Your task to perform on an android device: Go to CNN.com Image 0: 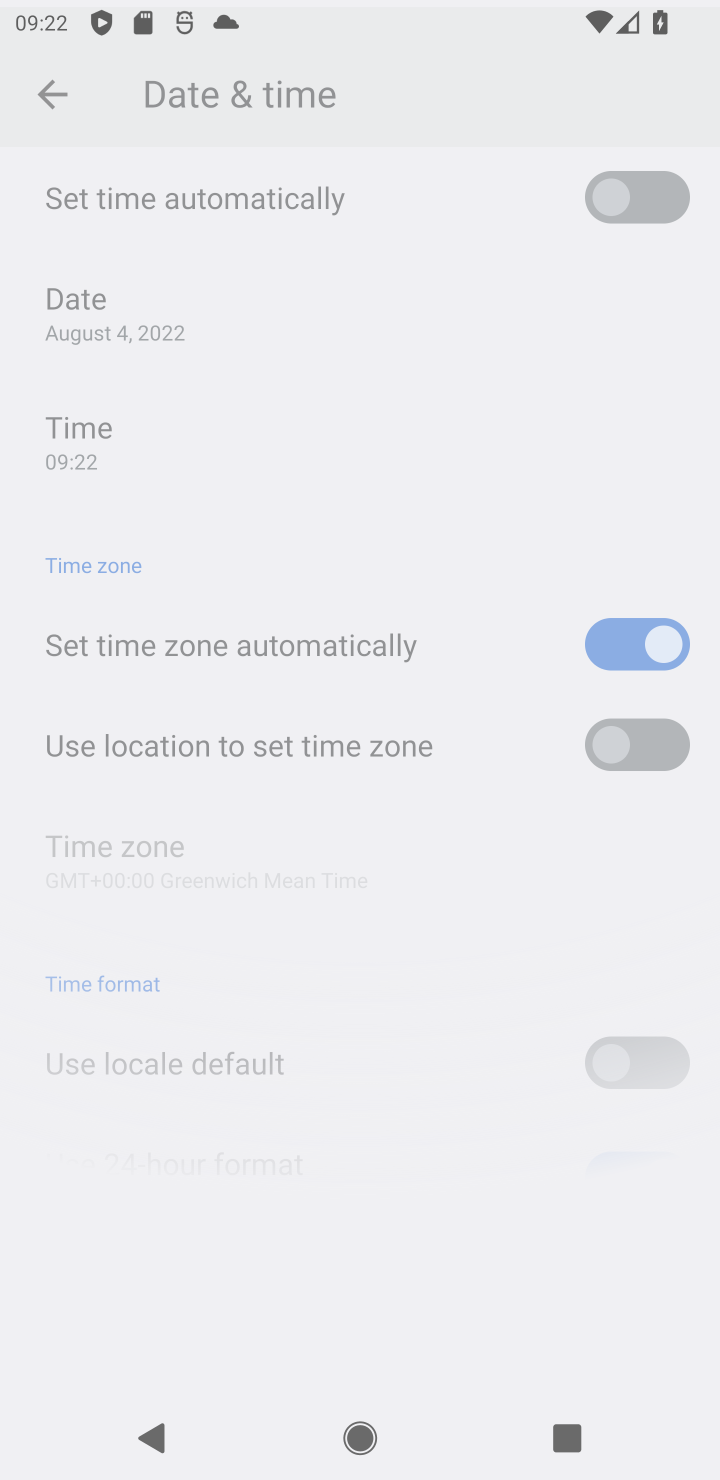
Step 0: press home button
Your task to perform on an android device: Go to CNN.com Image 1: 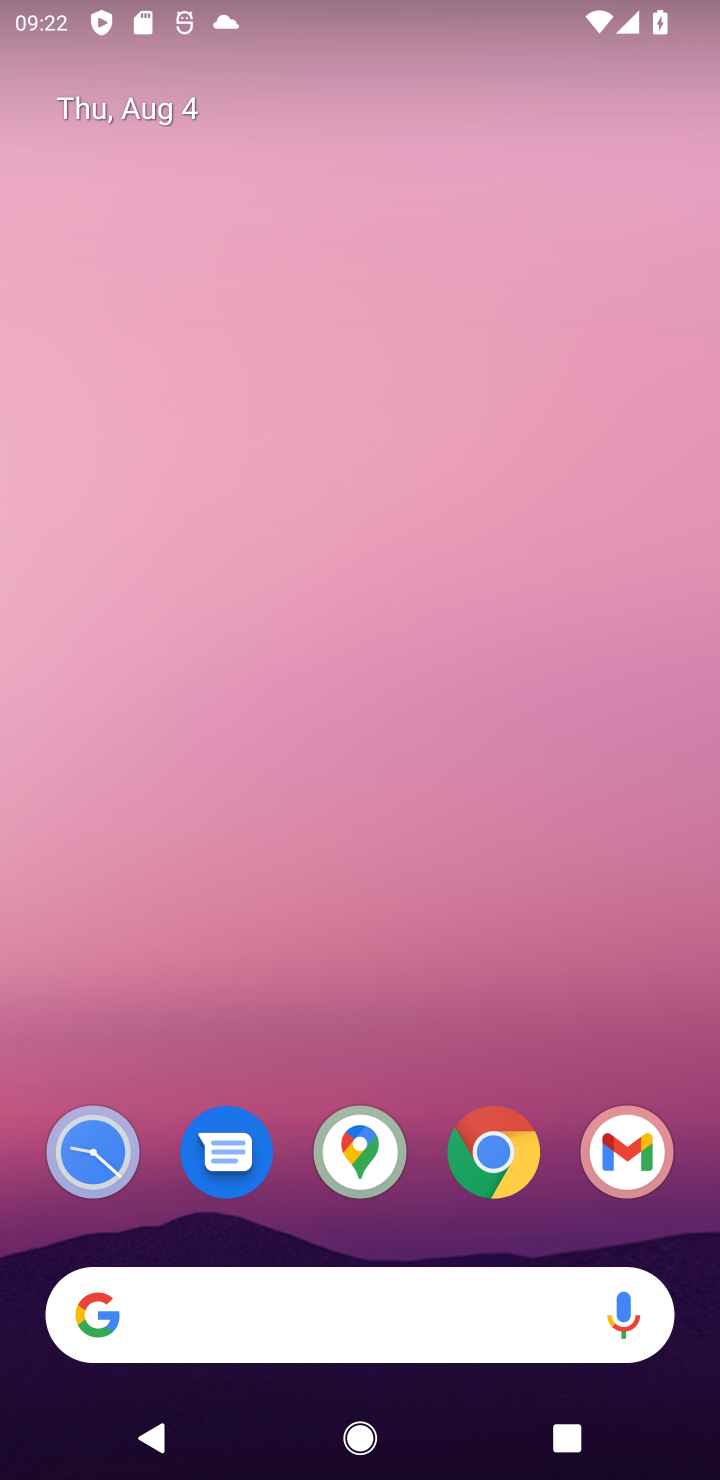
Step 1: press home button
Your task to perform on an android device: Go to CNN.com Image 2: 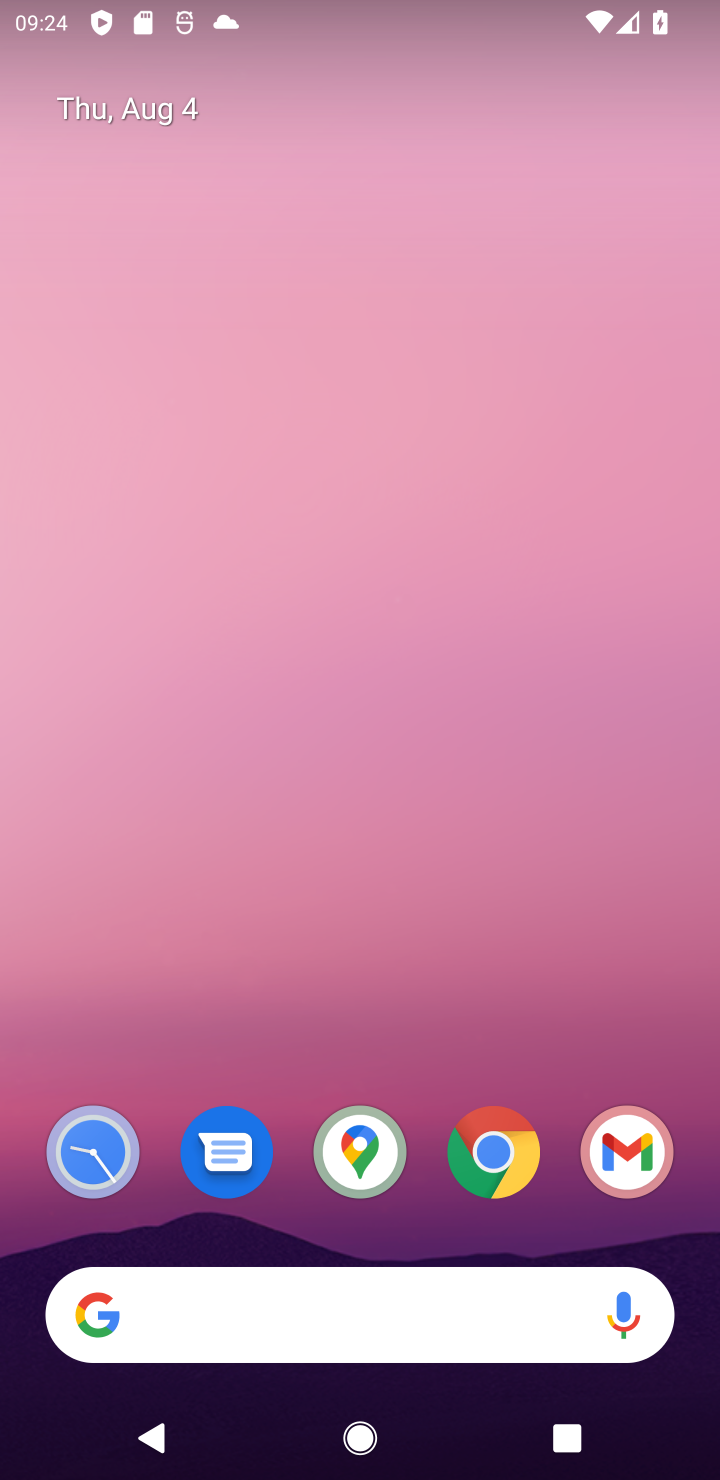
Step 2: click (275, 1337)
Your task to perform on an android device: Go to CNN.com Image 3: 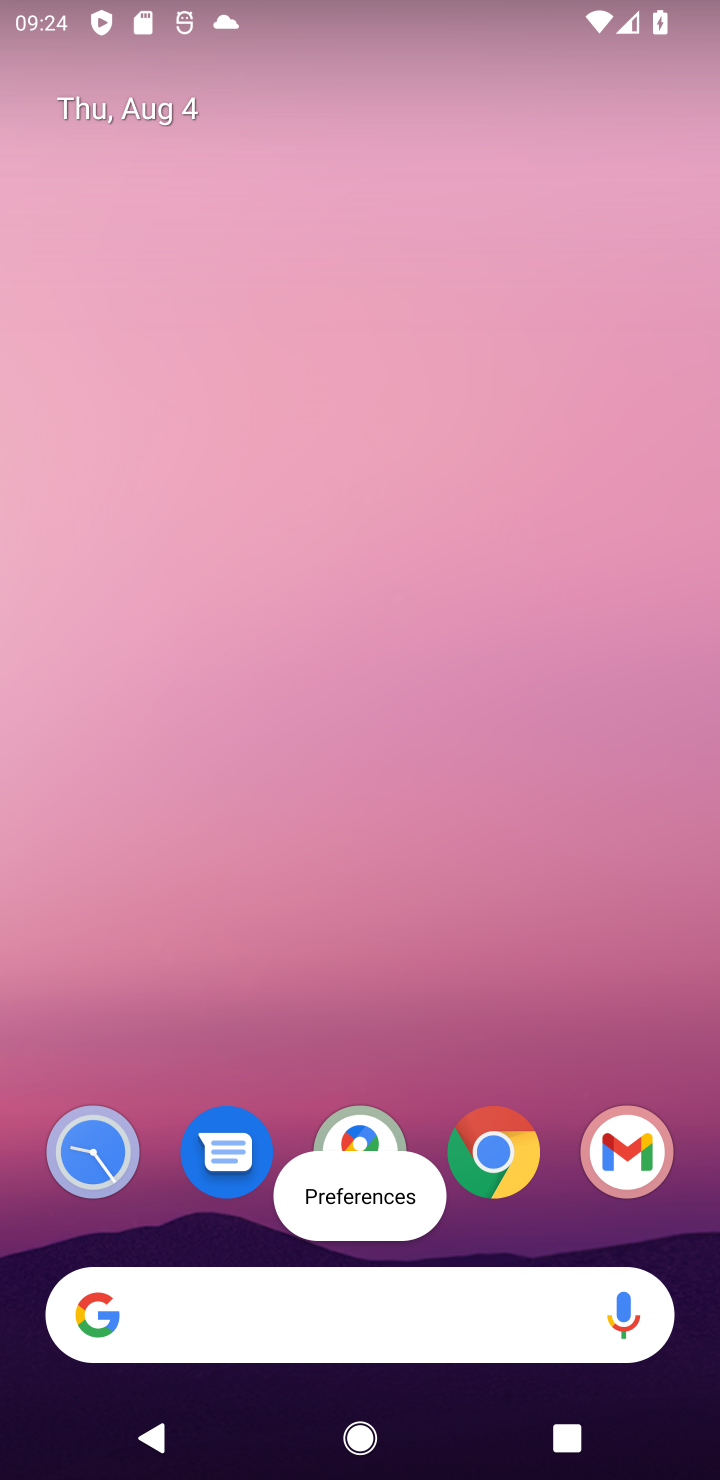
Step 3: click (221, 1319)
Your task to perform on an android device: Go to CNN.com Image 4: 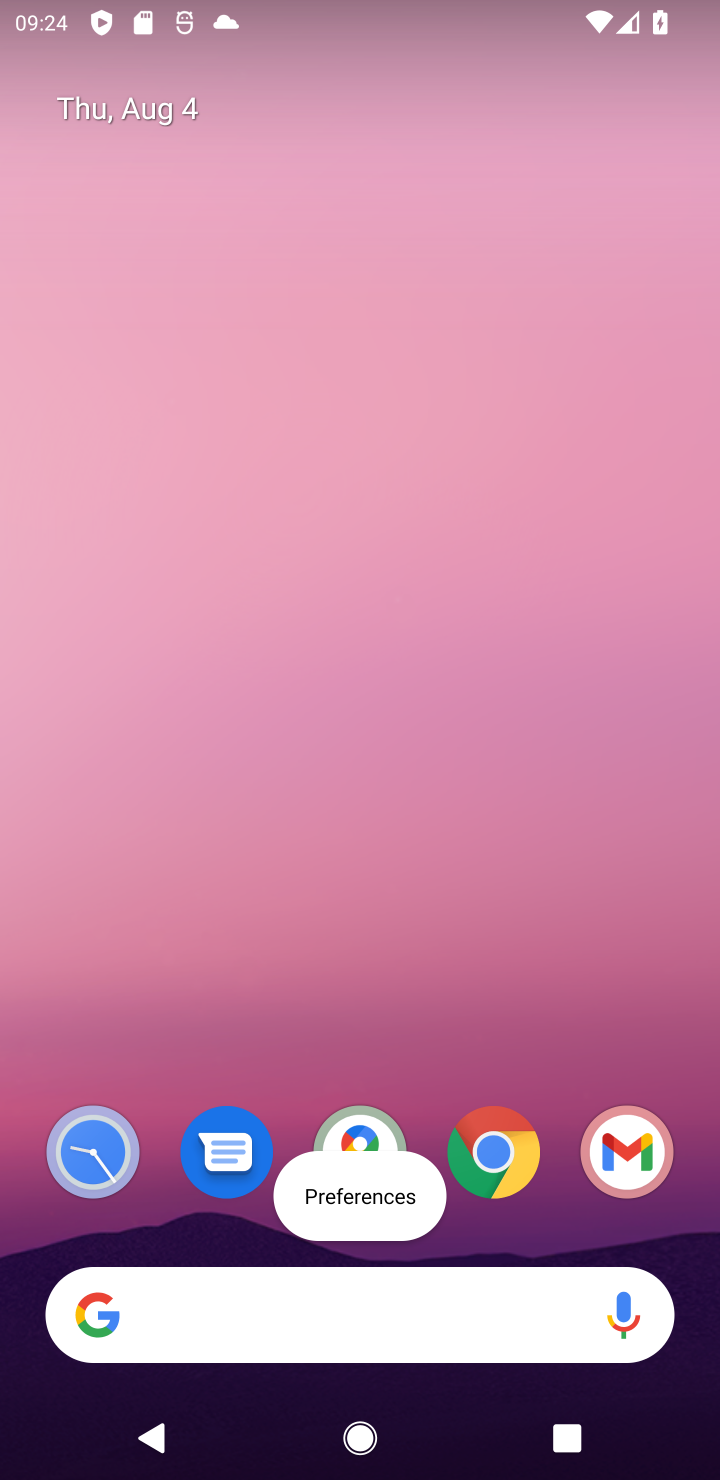
Step 4: click (209, 1308)
Your task to perform on an android device: Go to CNN.com Image 5: 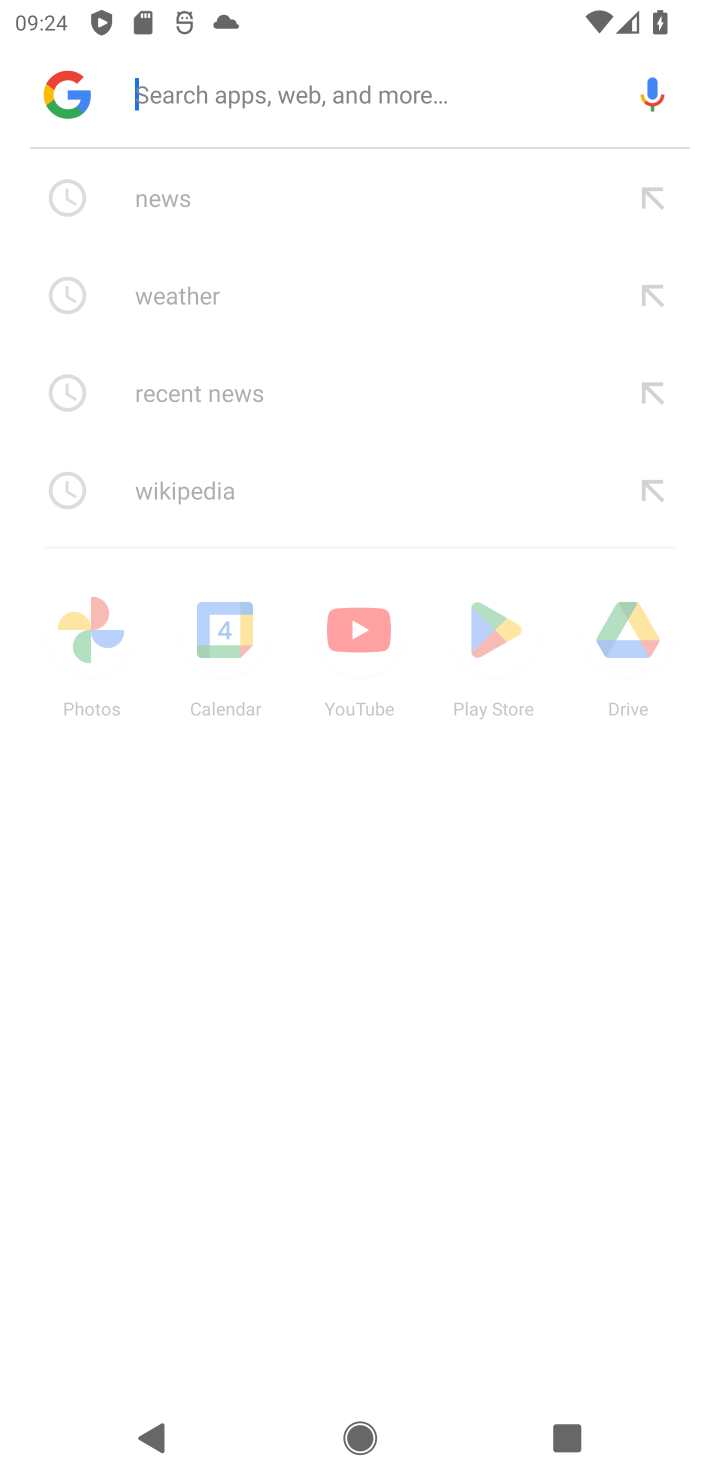
Step 5: click (277, 1333)
Your task to perform on an android device: Go to CNN.com Image 6: 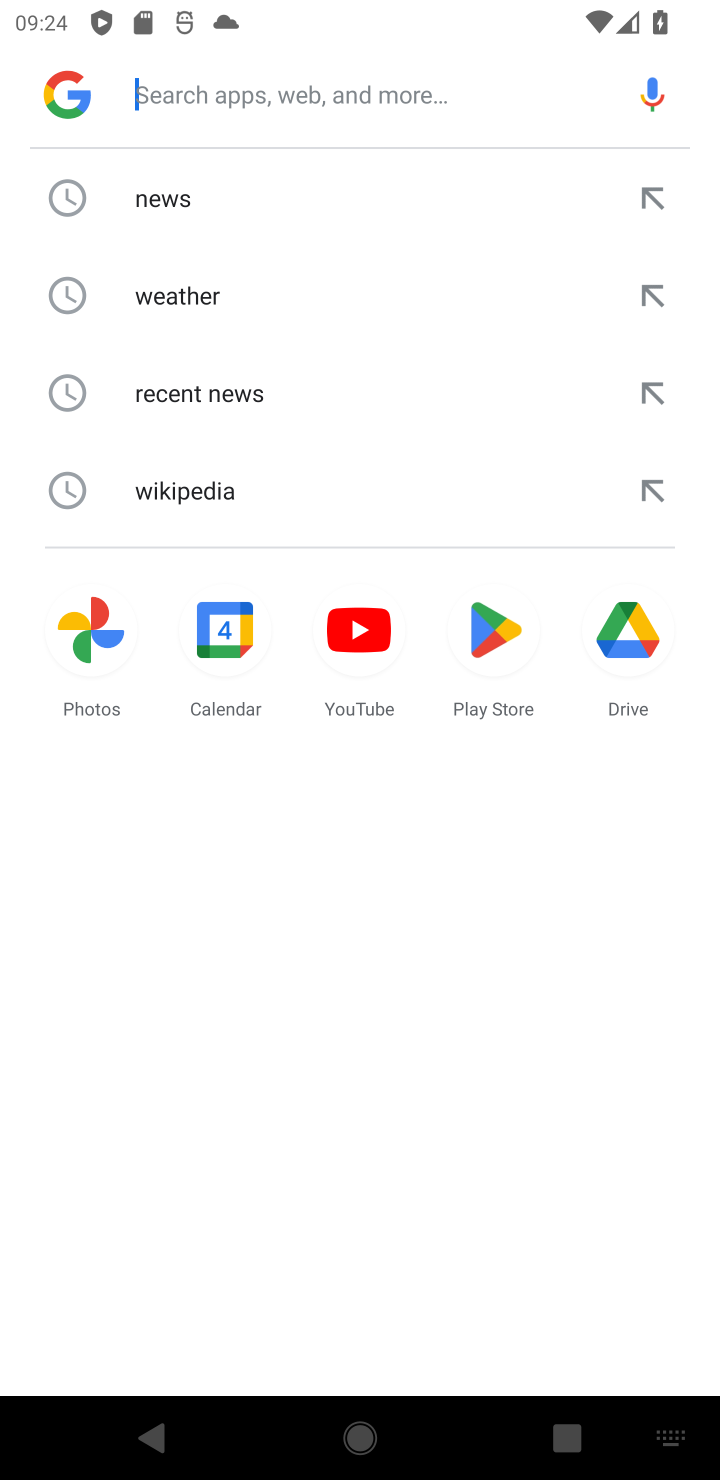
Step 6: type " CNN.com"
Your task to perform on an android device: Go to CNN.com Image 7: 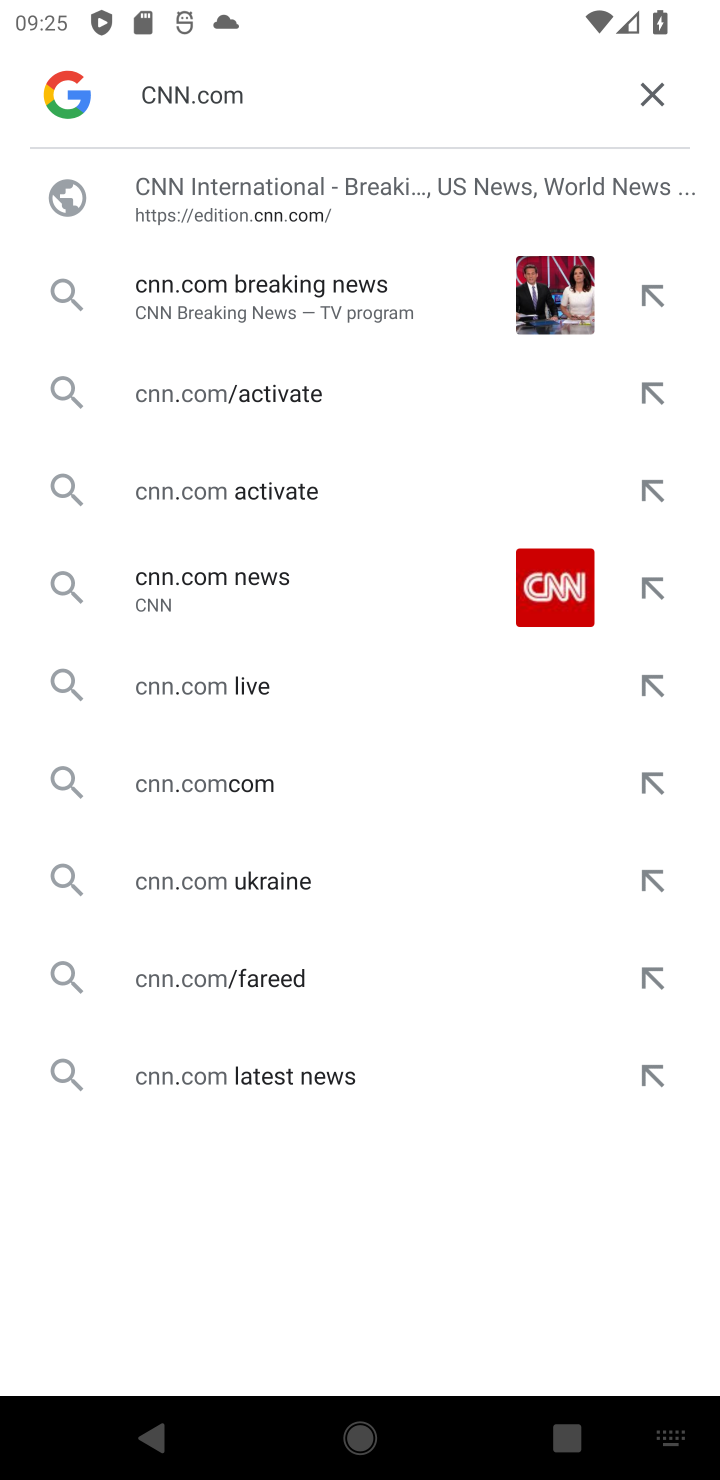
Step 7: click (449, 186)
Your task to perform on an android device: Go to CNN.com Image 8: 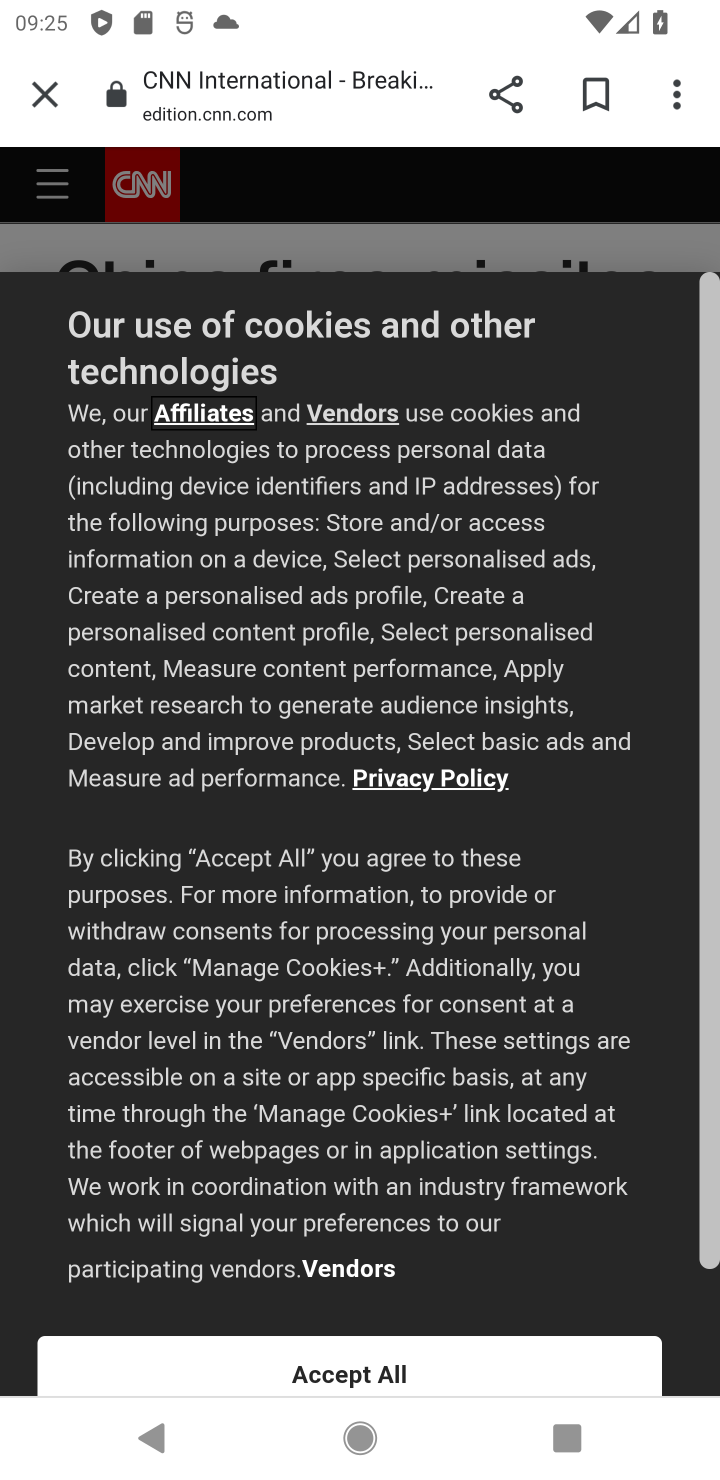
Step 8: task complete